Your task to perform on an android device: turn off sleep mode Image 0: 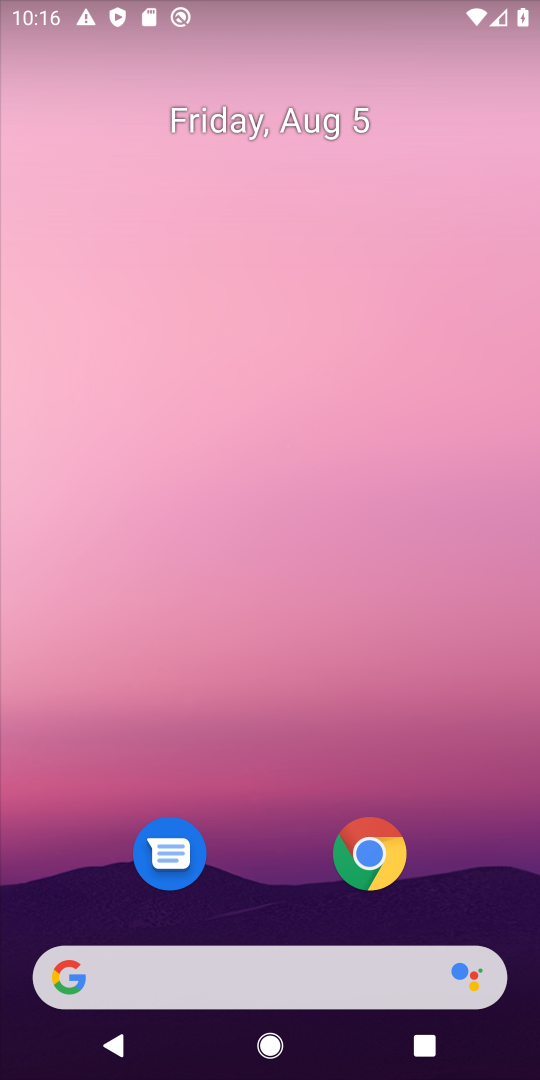
Step 0: drag from (258, 885) to (113, 282)
Your task to perform on an android device: turn off sleep mode Image 1: 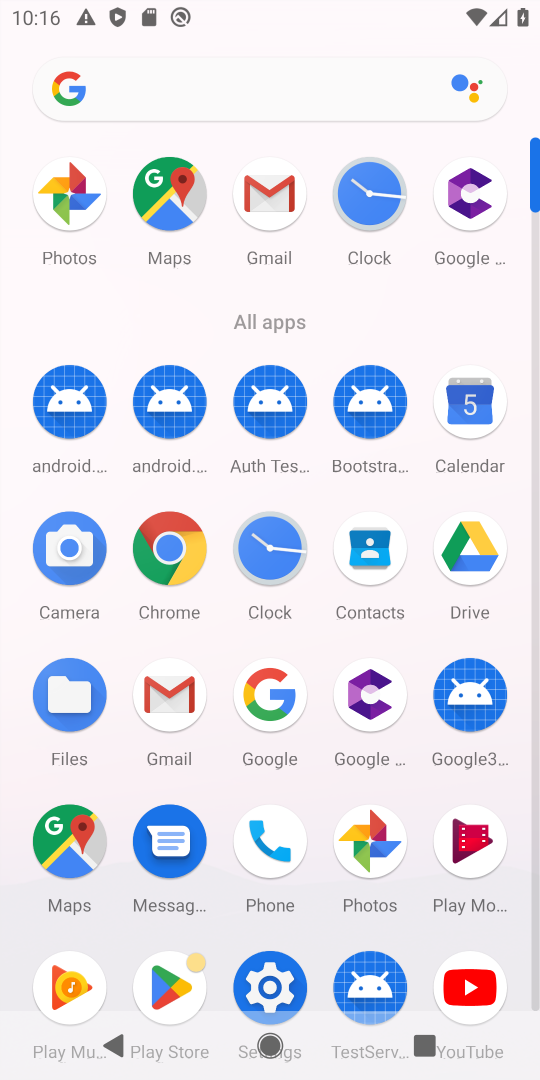
Step 1: click (264, 967)
Your task to perform on an android device: turn off sleep mode Image 2: 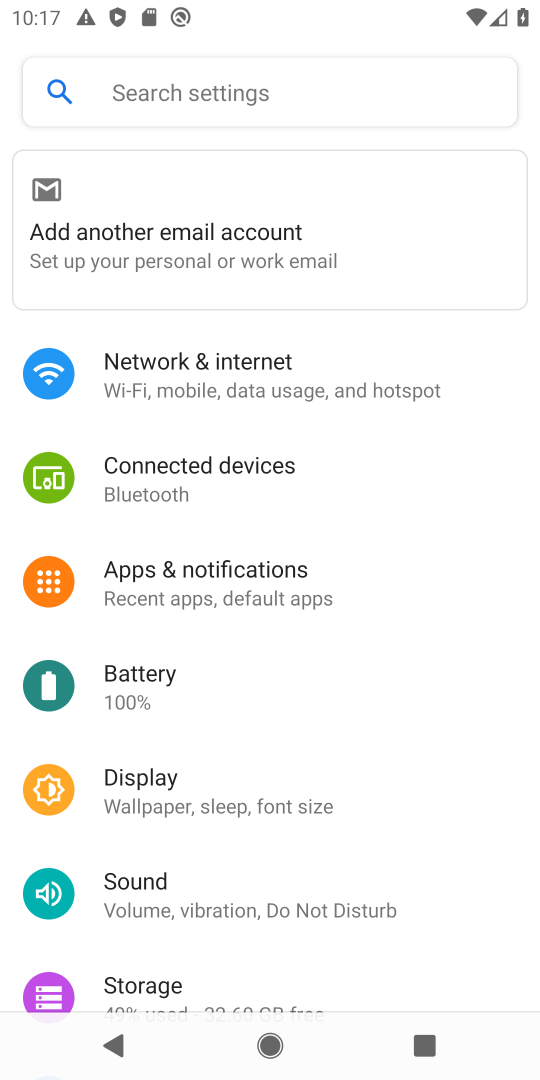
Step 2: click (199, 788)
Your task to perform on an android device: turn off sleep mode Image 3: 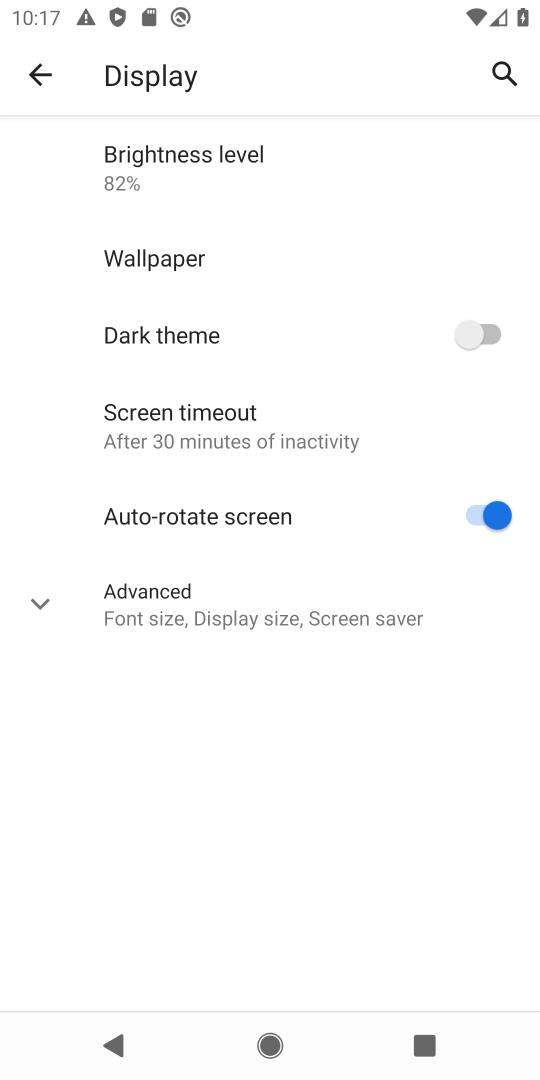
Step 3: task complete